Your task to perform on an android device: turn on airplane mode Image 0: 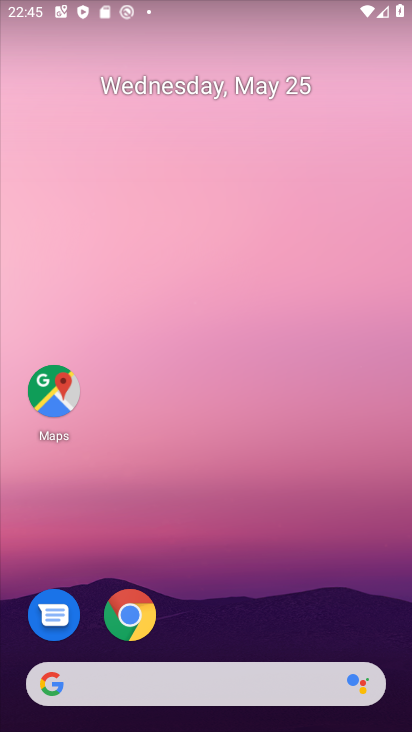
Step 0: drag from (199, 0) to (253, 543)
Your task to perform on an android device: turn on airplane mode Image 1: 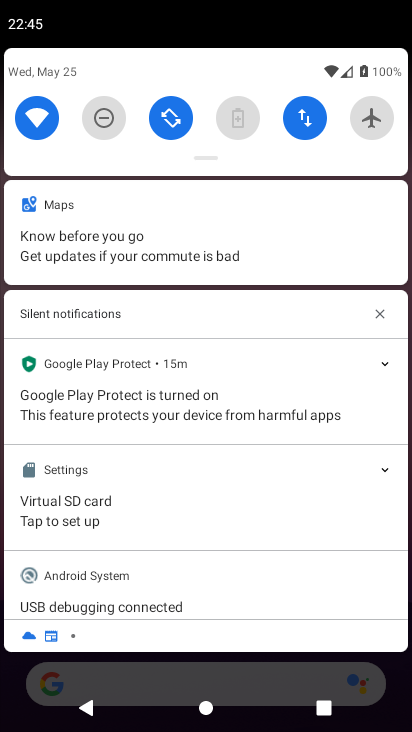
Step 1: click (376, 116)
Your task to perform on an android device: turn on airplane mode Image 2: 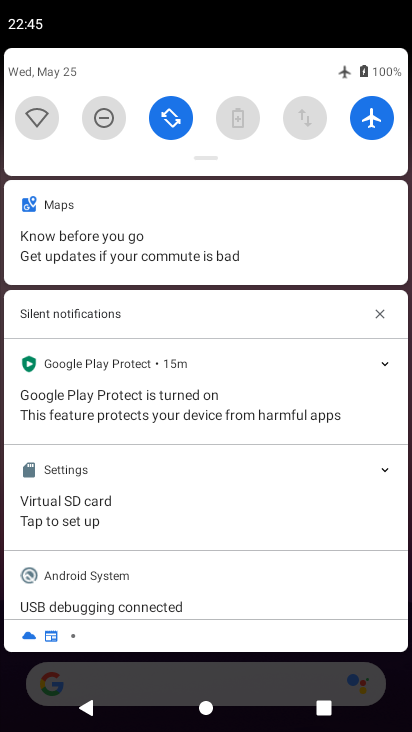
Step 2: task complete